Your task to perform on an android device: create a new album in the google photos Image 0: 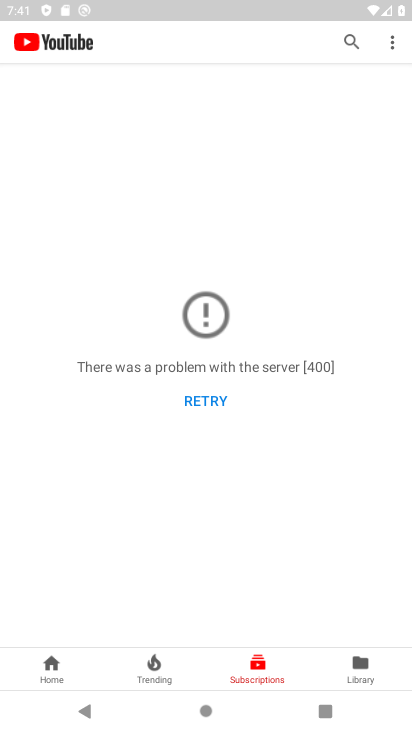
Step 0: press home button
Your task to perform on an android device: create a new album in the google photos Image 1: 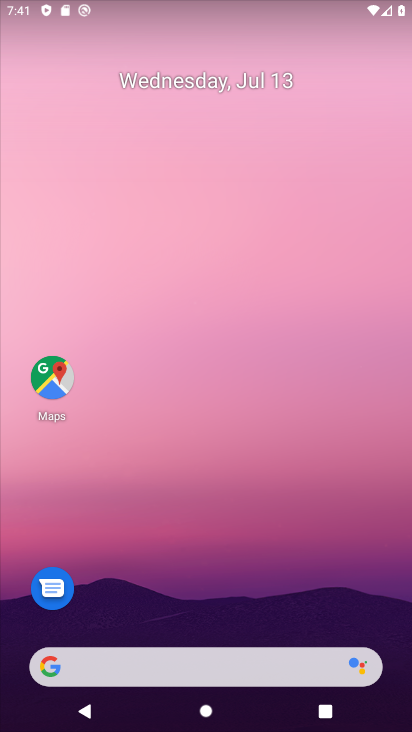
Step 1: drag from (153, 709) to (202, 236)
Your task to perform on an android device: create a new album in the google photos Image 2: 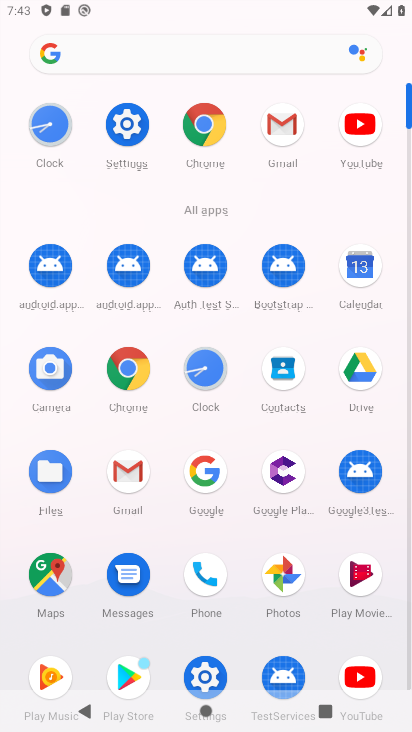
Step 2: click (277, 570)
Your task to perform on an android device: create a new album in the google photos Image 3: 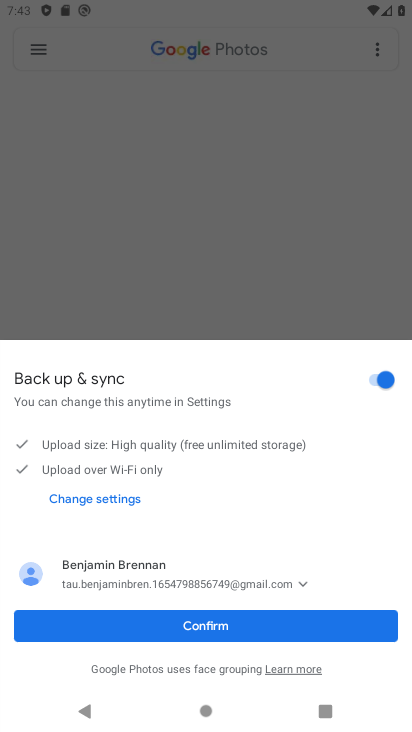
Step 3: click (277, 634)
Your task to perform on an android device: create a new album in the google photos Image 4: 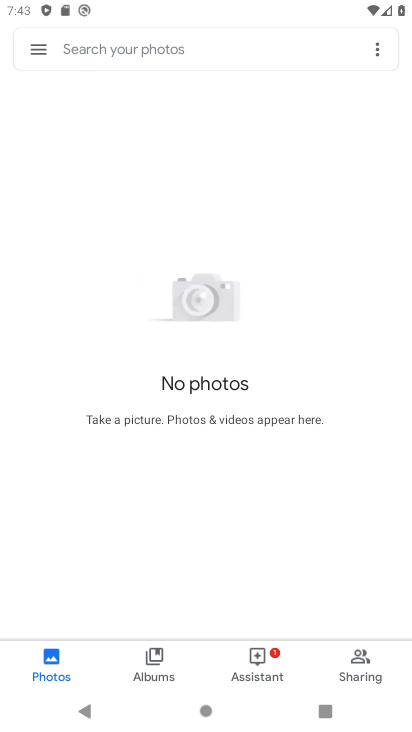
Step 4: click (147, 652)
Your task to perform on an android device: create a new album in the google photos Image 5: 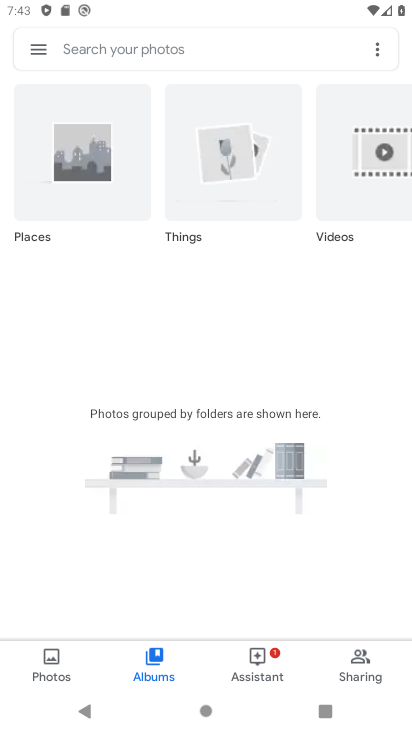
Step 5: click (187, 40)
Your task to perform on an android device: create a new album in the google photos Image 6: 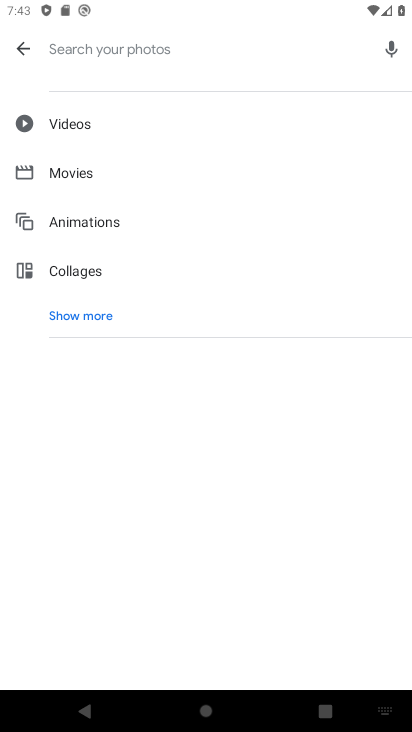
Step 6: task complete